Your task to perform on an android device: change the clock display to analog Image 0: 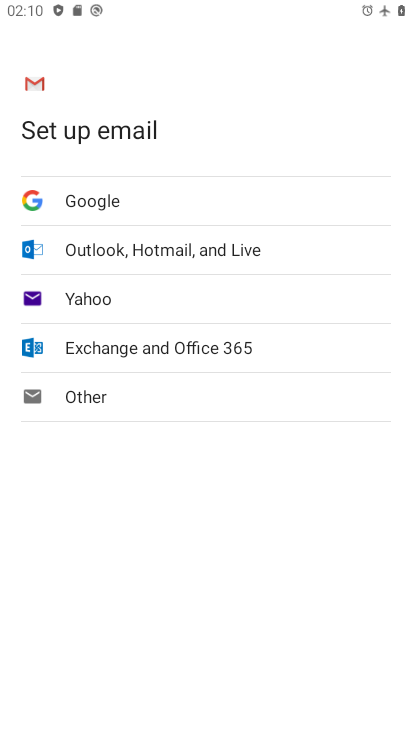
Step 0: press home button
Your task to perform on an android device: change the clock display to analog Image 1: 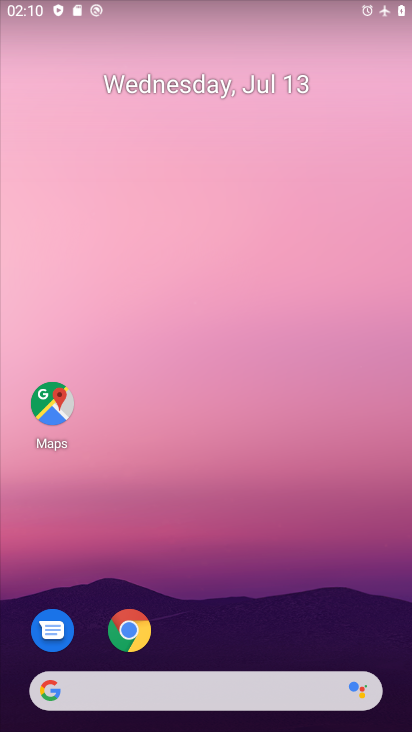
Step 1: drag from (213, 633) to (202, 215)
Your task to perform on an android device: change the clock display to analog Image 2: 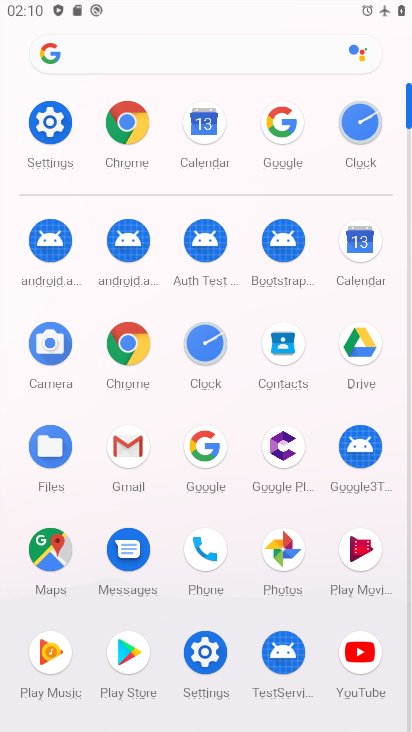
Step 2: click (202, 344)
Your task to perform on an android device: change the clock display to analog Image 3: 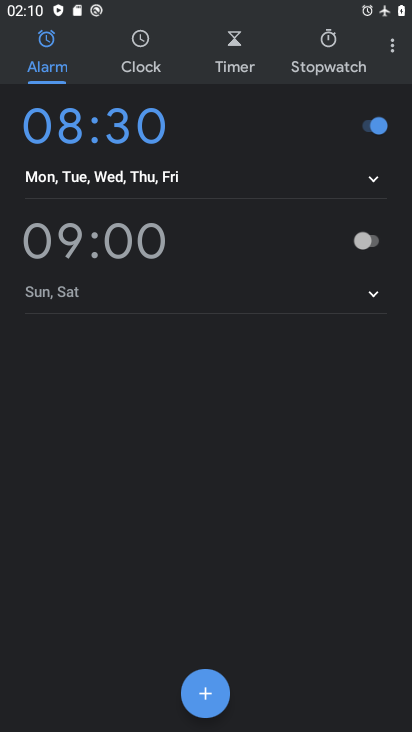
Step 3: click (387, 44)
Your task to perform on an android device: change the clock display to analog Image 4: 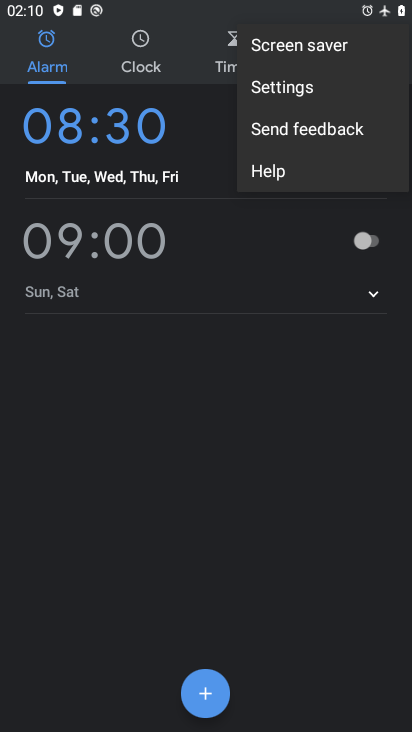
Step 4: click (322, 79)
Your task to perform on an android device: change the clock display to analog Image 5: 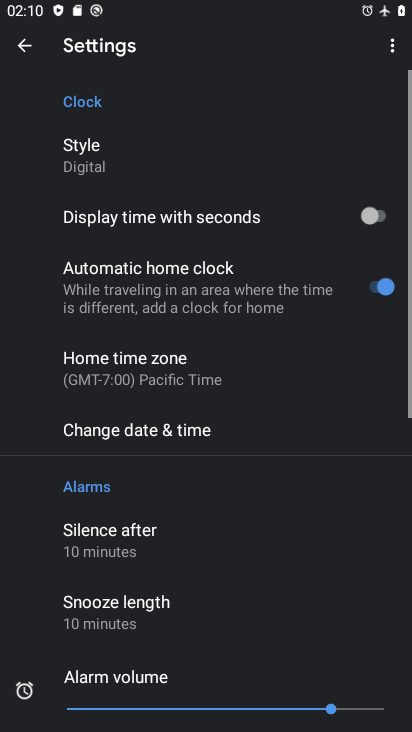
Step 5: click (91, 174)
Your task to perform on an android device: change the clock display to analog Image 6: 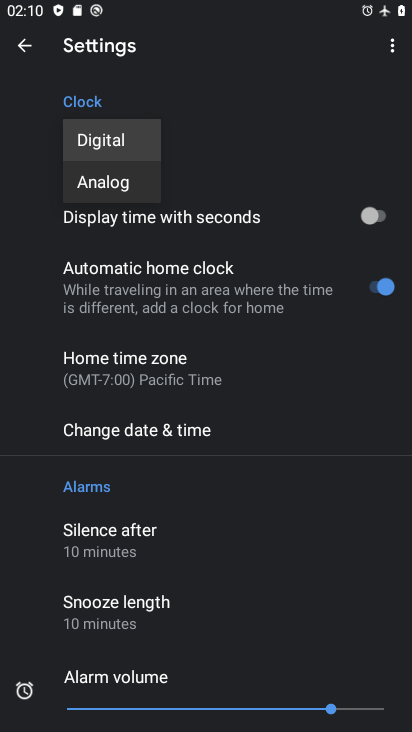
Step 6: click (119, 184)
Your task to perform on an android device: change the clock display to analog Image 7: 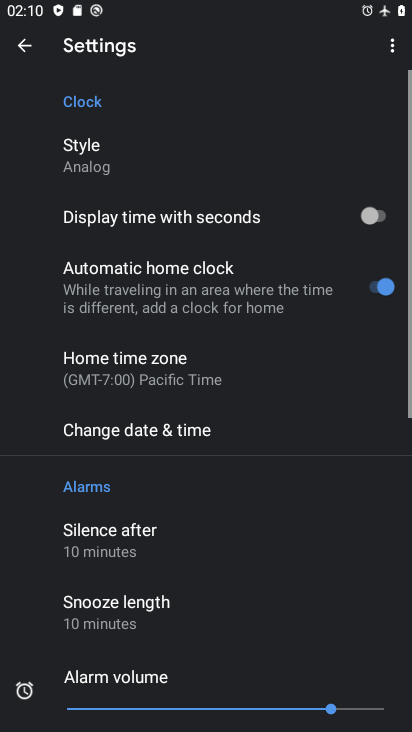
Step 7: task complete